Your task to perform on an android device: allow notifications from all sites in the chrome app Image 0: 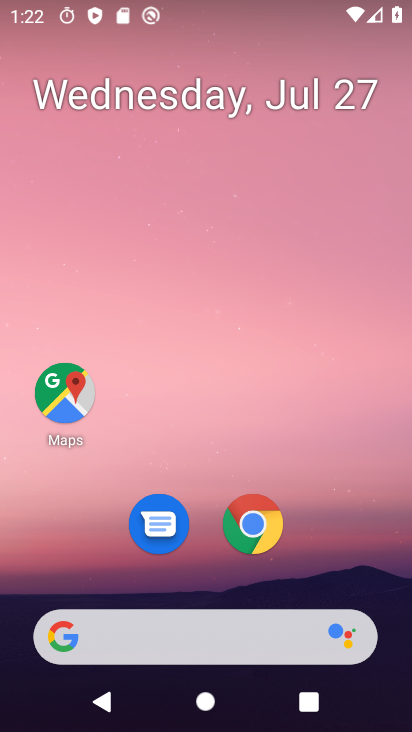
Step 0: click (270, 519)
Your task to perform on an android device: allow notifications from all sites in the chrome app Image 1: 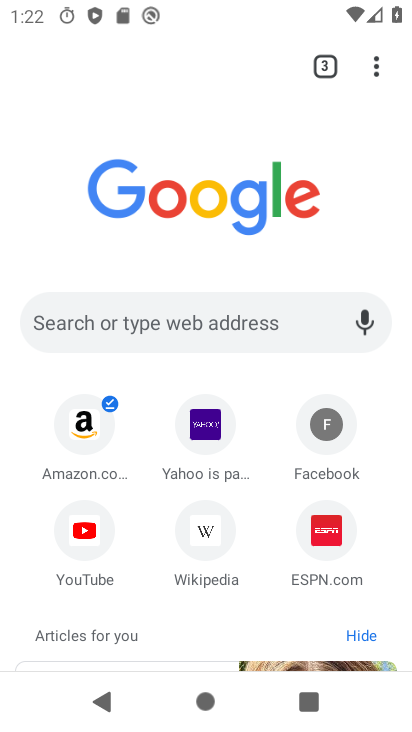
Step 1: click (375, 73)
Your task to perform on an android device: allow notifications from all sites in the chrome app Image 2: 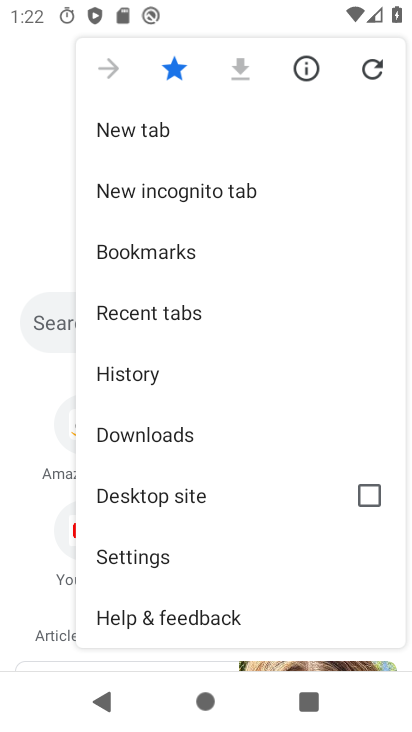
Step 2: click (160, 557)
Your task to perform on an android device: allow notifications from all sites in the chrome app Image 3: 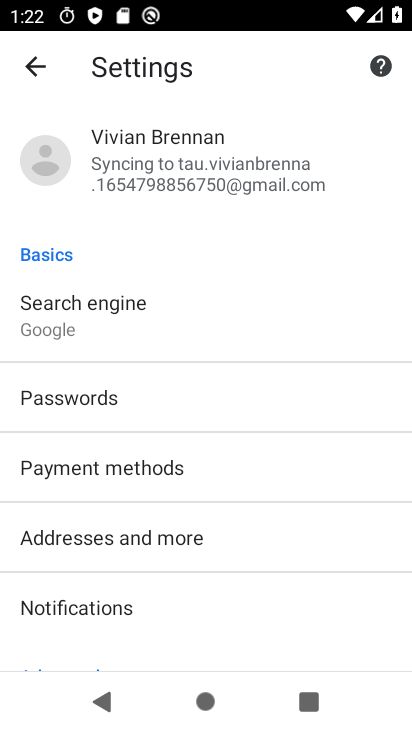
Step 3: click (122, 606)
Your task to perform on an android device: allow notifications from all sites in the chrome app Image 4: 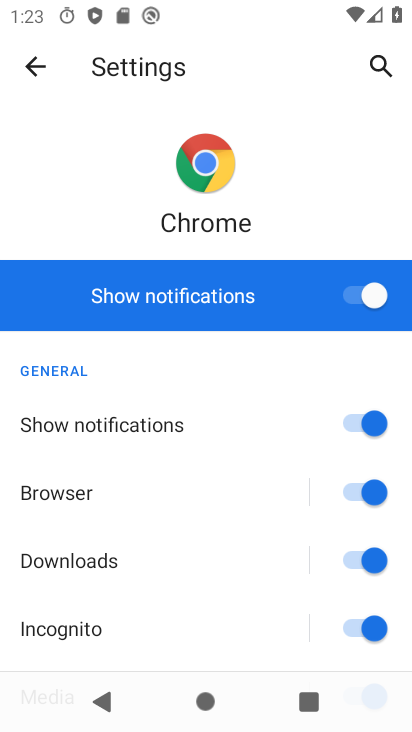
Step 4: task complete